Your task to perform on an android device: Open Google Chrome and click the shortcut for Amazon.com Image 0: 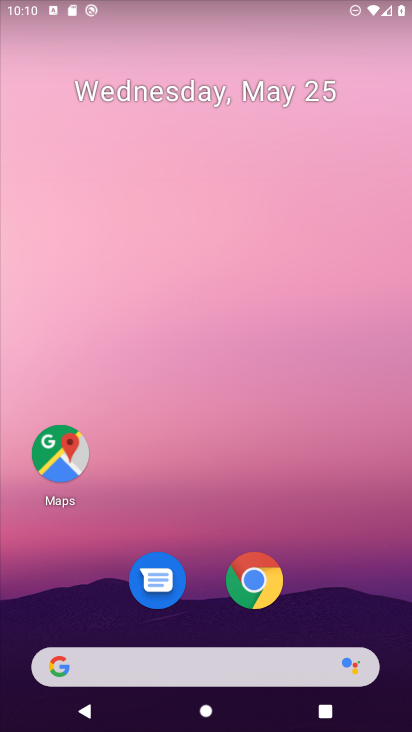
Step 0: press home button
Your task to perform on an android device: Open Google Chrome and click the shortcut for Amazon.com Image 1: 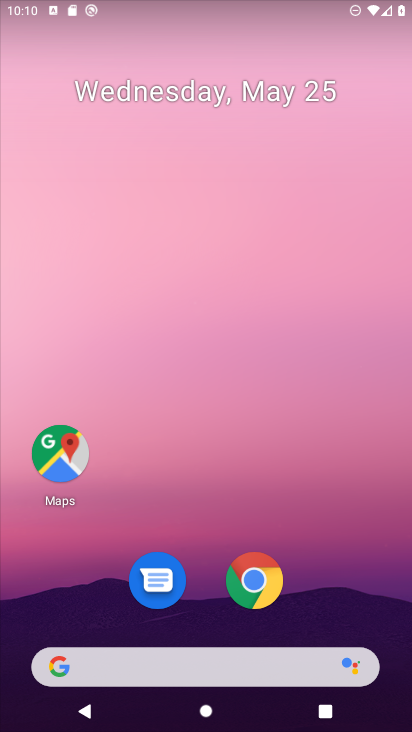
Step 1: click (238, 580)
Your task to perform on an android device: Open Google Chrome and click the shortcut for Amazon.com Image 2: 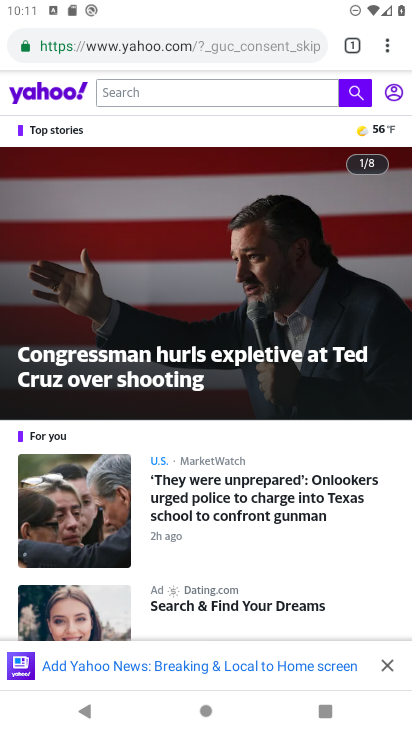
Step 2: click (358, 45)
Your task to perform on an android device: Open Google Chrome and click the shortcut for Amazon.com Image 3: 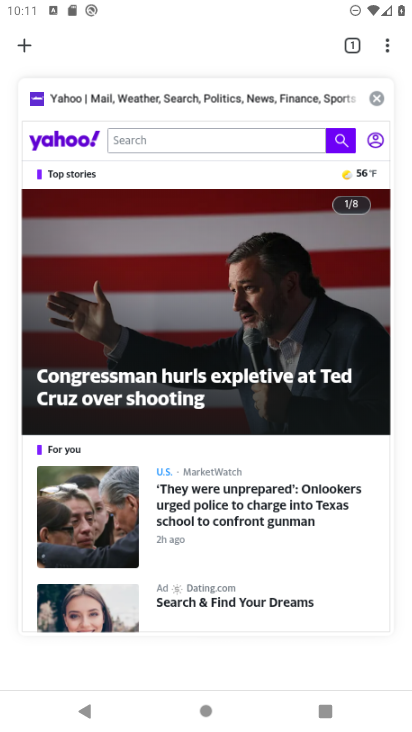
Step 3: click (370, 100)
Your task to perform on an android device: Open Google Chrome and click the shortcut for Amazon.com Image 4: 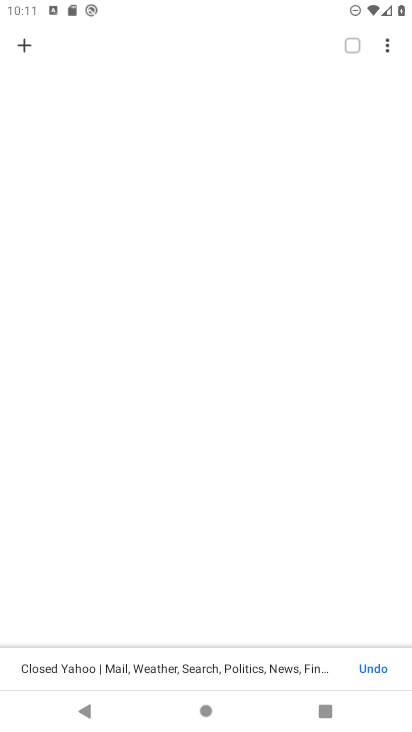
Step 4: click (27, 49)
Your task to perform on an android device: Open Google Chrome and click the shortcut for Amazon.com Image 5: 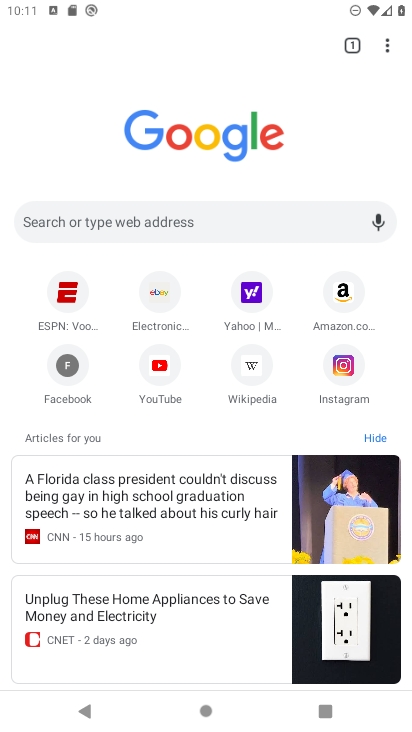
Step 5: click (348, 294)
Your task to perform on an android device: Open Google Chrome and click the shortcut for Amazon.com Image 6: 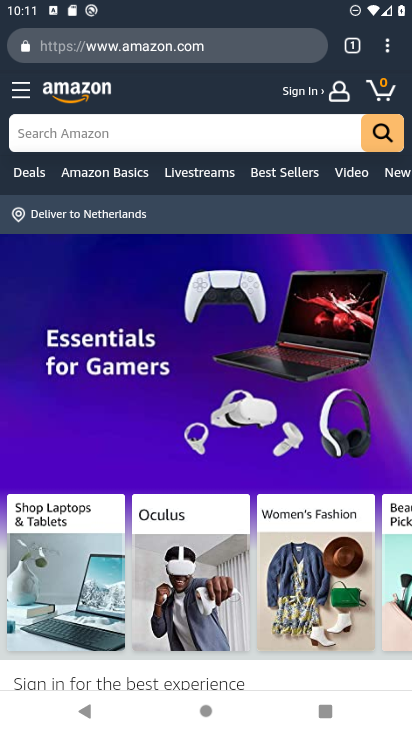
Step 6: task complete